Your task to perform on an android device: turn off wifi Image 0: 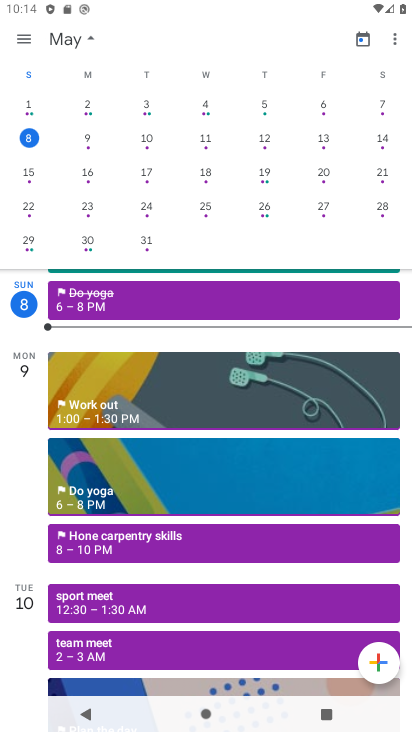
Step 0: press home button
Your task to perform on an android device: turn off wifi Image 1: 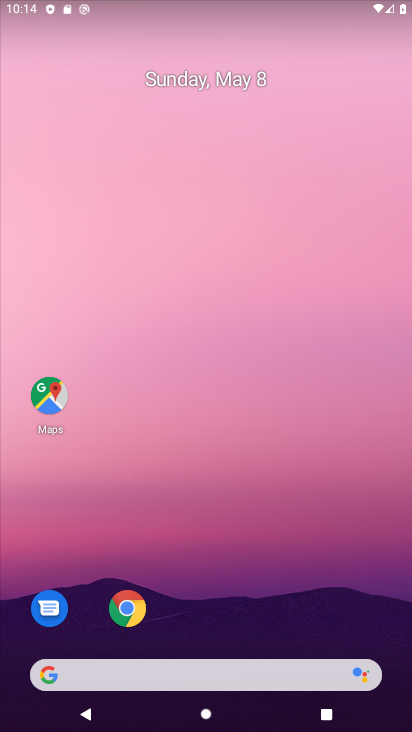
Step 1: click (212, 355)
Your task to perform on an android device: turn off wifi Image 2: 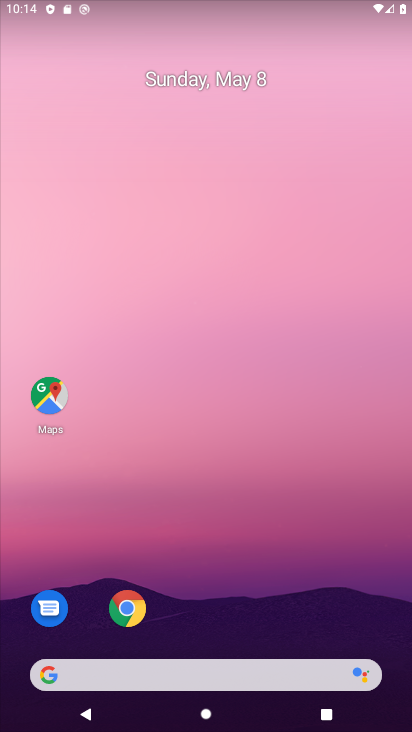
Step 2: drag from (198, 616) to (198, 157)
Your task to perform on an android device: turn off wifi Image 3: 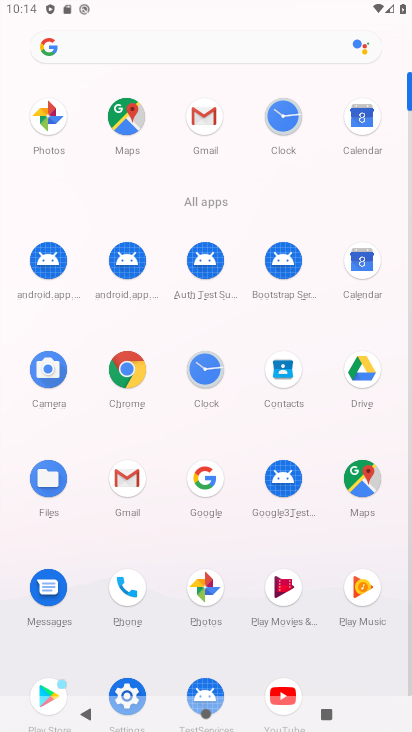
Step 3: click (130, 684)
Your task to perform on an android device: turn off wifi Image 4: 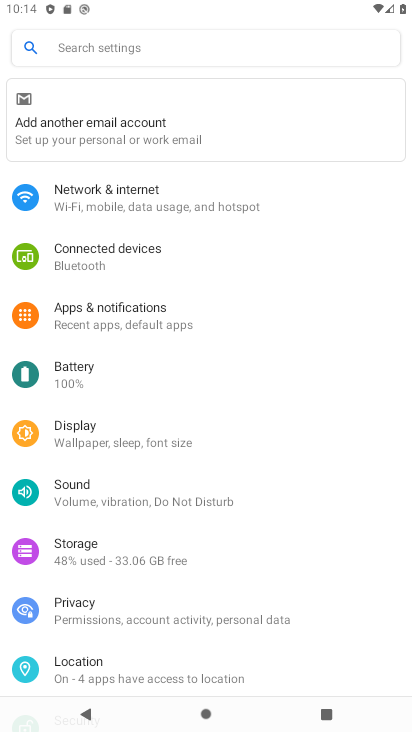
Step 4: click (117, 199)
Your task to perform on an android device: turn off wifi Image 5: 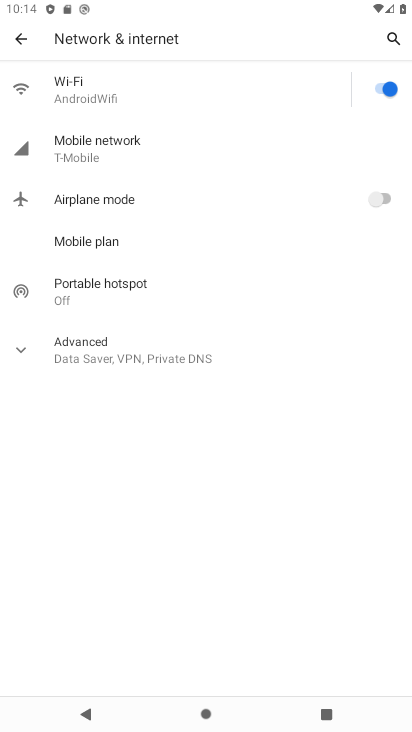
Step 5: click (371, 94)
Your task to perform on an android device: turn off wifi Image 6: 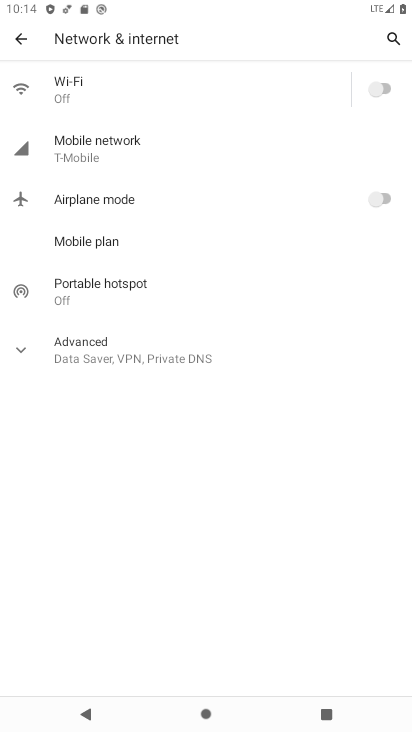
Step 6: task complete